Your task to perform on an android device: add a contact Image 0: 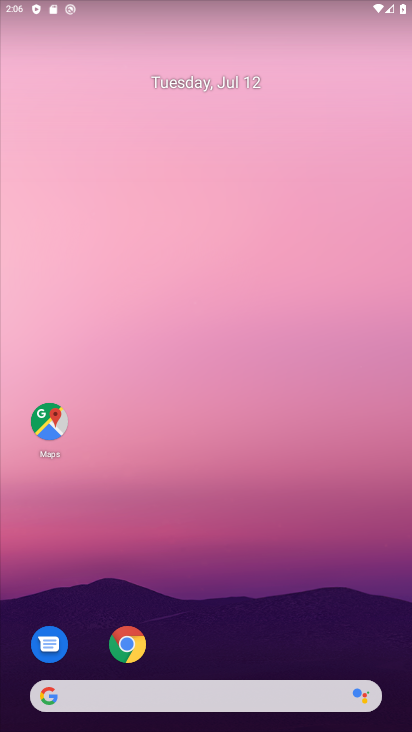
Step 0: drag from (341, 619) to (319, 147)
Your task to perform on an android device: add a contact Image 1: 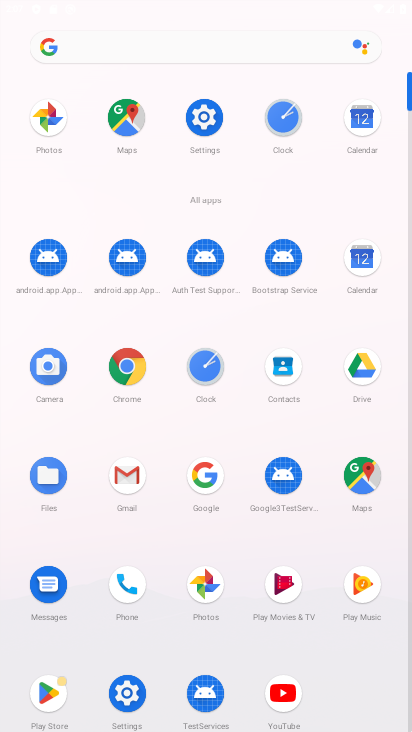
Step 1: click (286, 376)
Your task to perform on an android device: add a contact Image 2: 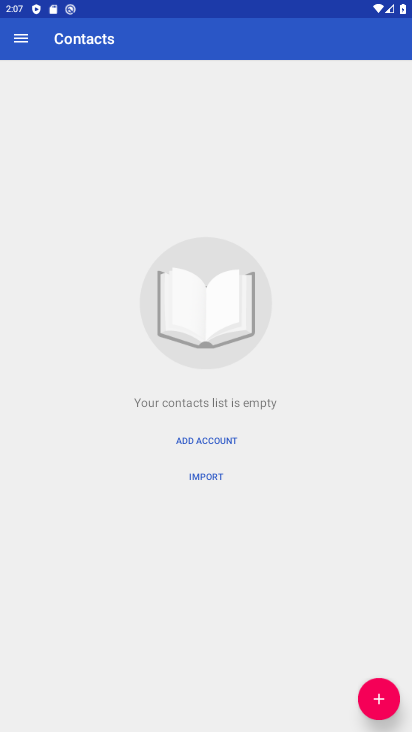
Step 2: click (374, 700)
Your task to perform on an android device: add a contact Image 3: 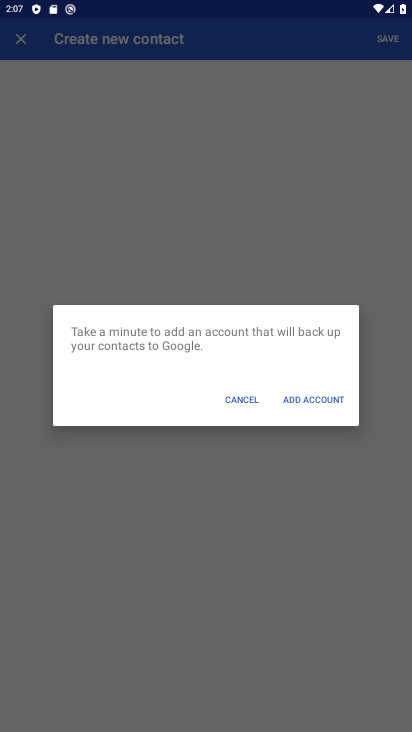
Step 3: click (306, 402)
Your task to perform on an android device: add a contact Image 4: 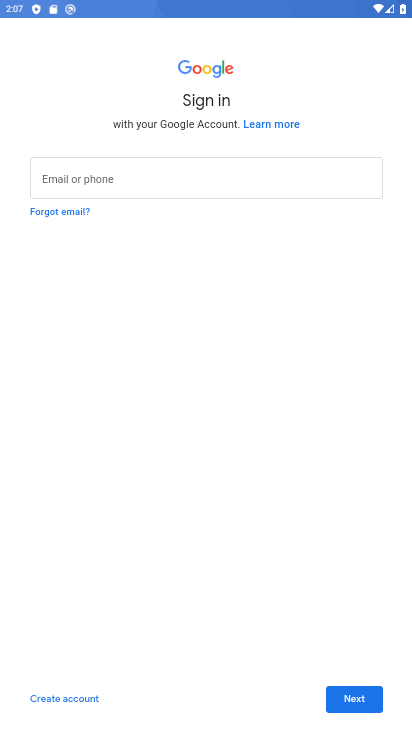
Step 4: task complete